Your task to perform on an android device: Set the phone to "Do not disturb". Image 0: 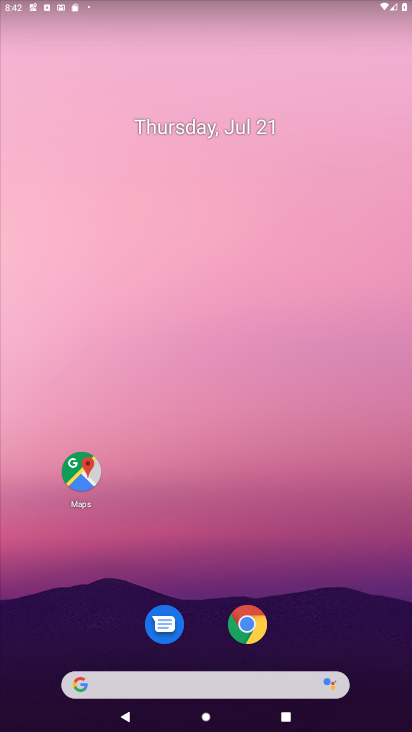
Step 0: drag from (273, 11) to (237, 235)
Your task to perform on an android device: Set the phone to "Do not disturb". Image 1: 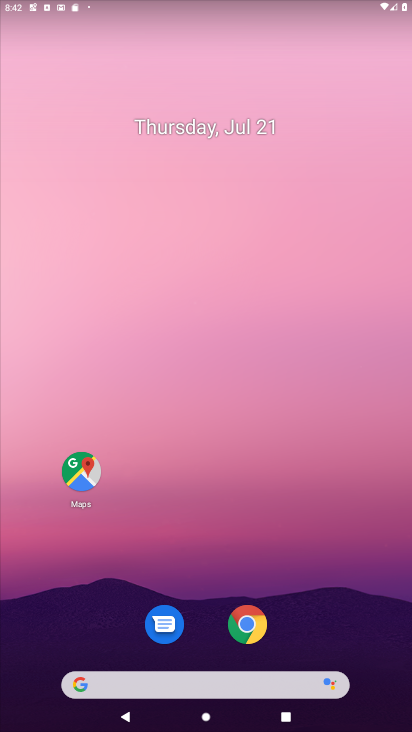
Step 1: drag from (316, 12) to (235, 569)
Your task to perform on an android device: Set the phone to "Do not disturb". Image 2: 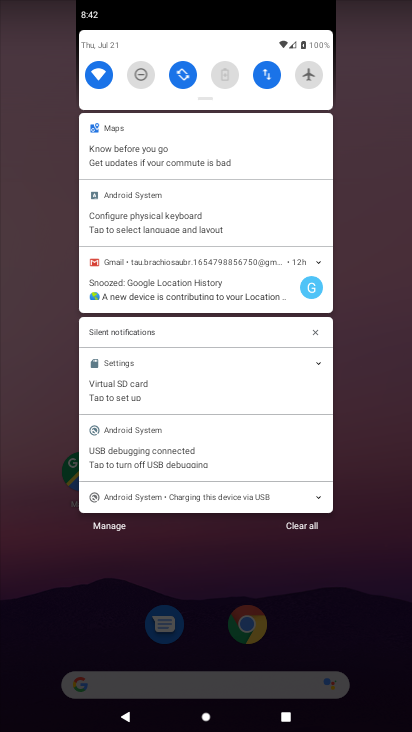
Step 2: click (133, 82)
Your task to perform on an android device: Set the phone to "Do not disturb". Image 3: 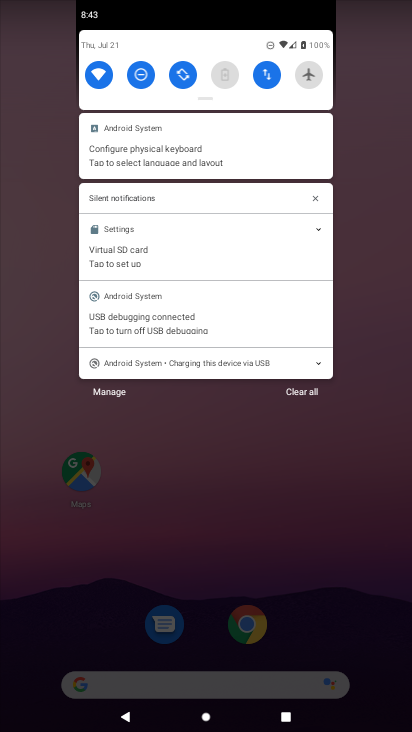
Step 3: task complete